Your task to perform on an android device: What is the news today? Image 0: 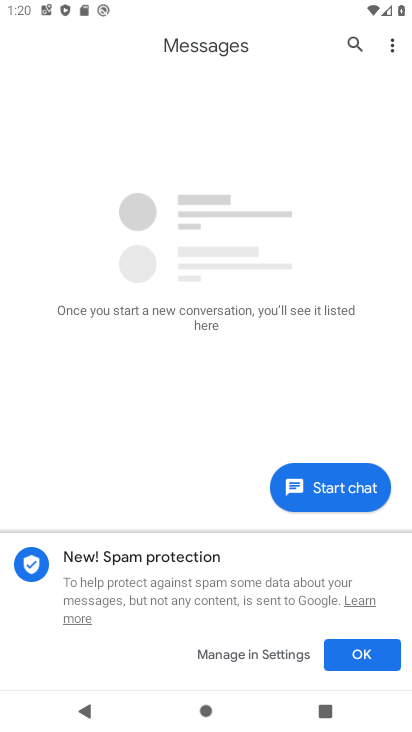
Step 0: press back button
Your task to perform on an android device: What is the news today? Image 1: 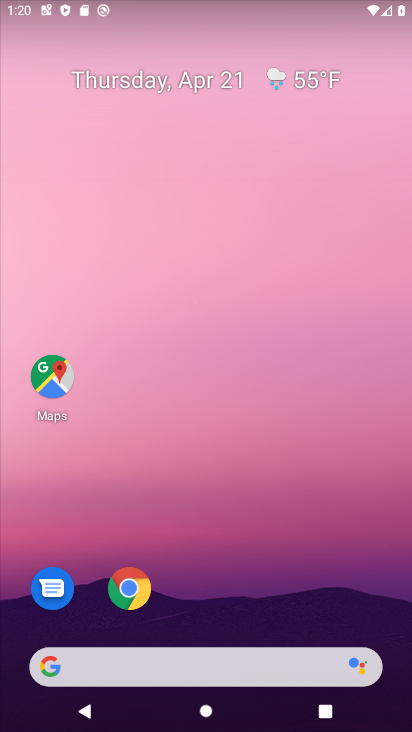
Step 1: task complete